Your task to perform on an android device: Open Google Maps and go to "Timeline" Image 0: 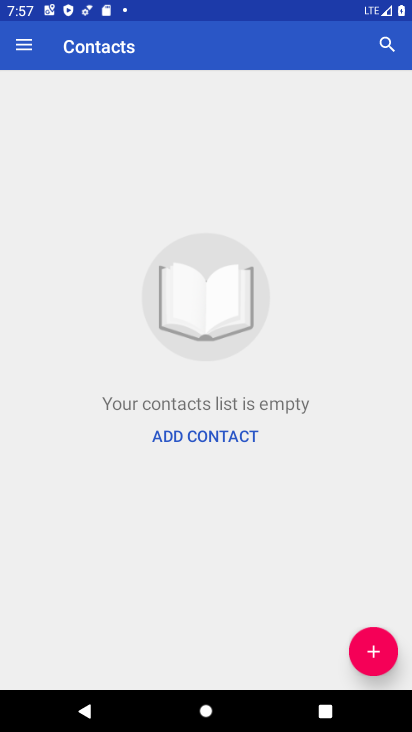
Step 0: press home button
Your task to perform on an android device: Open Google Maps and go to "Timeline" Image 1: 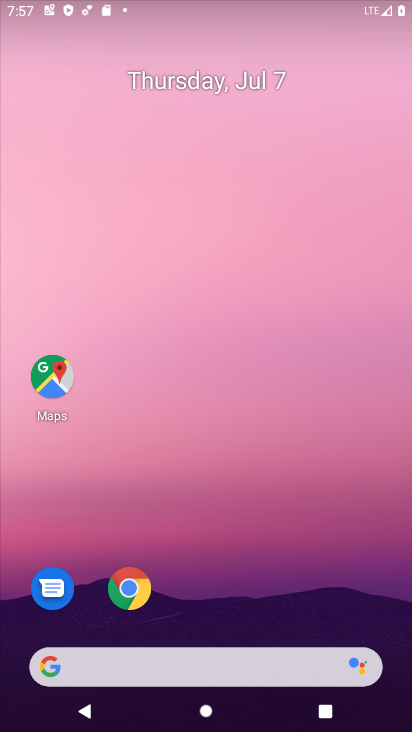
Step 1: drag from (197, 584) to (197, 244)
Your task to perform on an android device: Open Google Maps and go to "Timeline" Image 2: 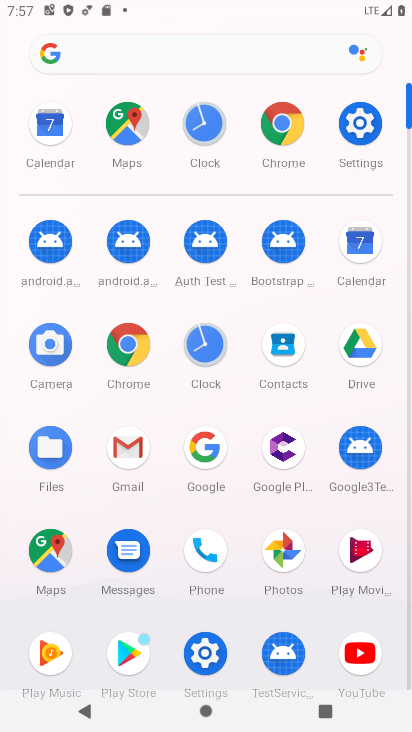
Step 2: click (54, 553)
Your task to perform on an android device: Open Google Maps and go to "Timeline" Image 3: 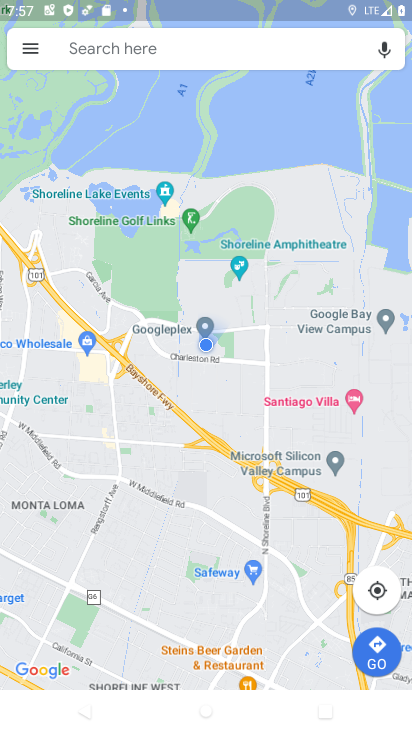
Step 3: click (21, 36)
Your task to perform on an android device: Open Google Maps and go to "Timeline" Image 4: 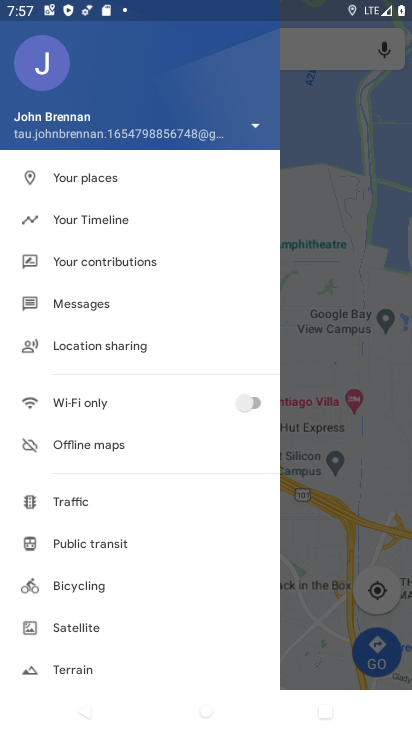
Step 4: click (112, 228)
Your task to perform on an android device: Open Google Maps and go to "Timeline" Image 5: 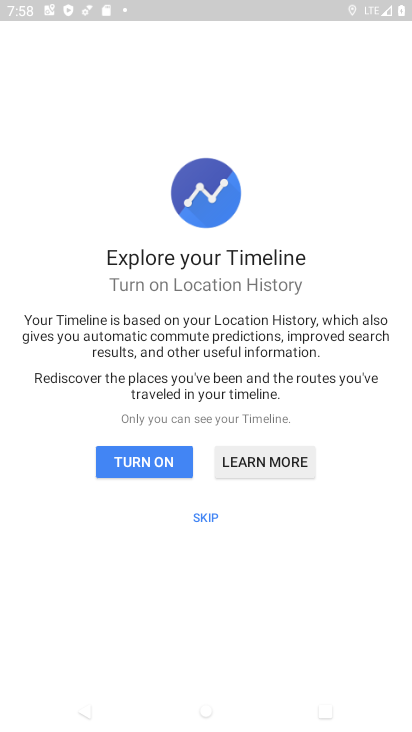
Step 5: click (200, 509)
Your task to perform on an android device: Open Google Maps and go to "Timeline" Image 6: 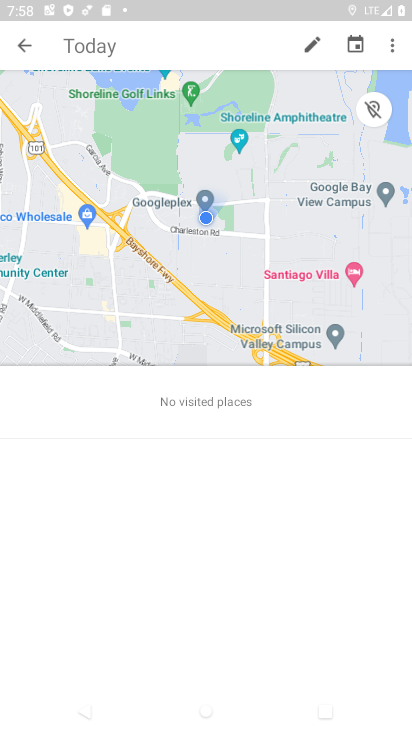
Step 6: task complete